Your task to perform on an android device: Go to notification settings Image 0: 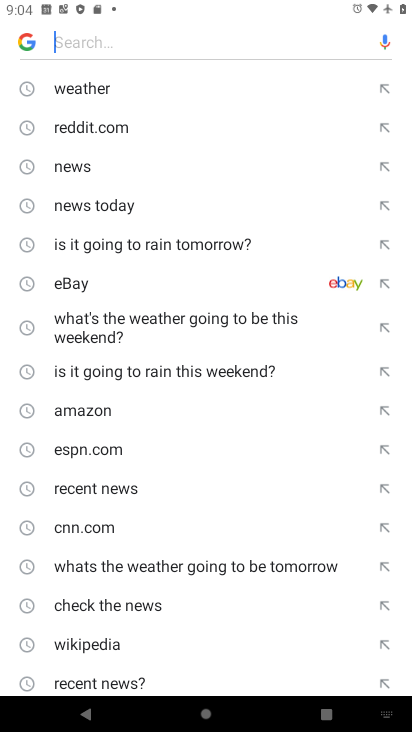
Step 0: press home button
Your task to perform on an android device: Go to notification settings Image 1: 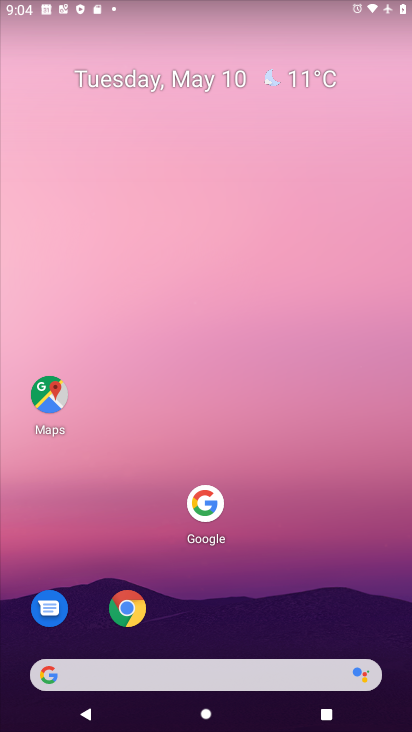
Step 1: drag from (199, 674) to (409, 53)
Your task to perform on an android device: Go to notification settings Image 2: 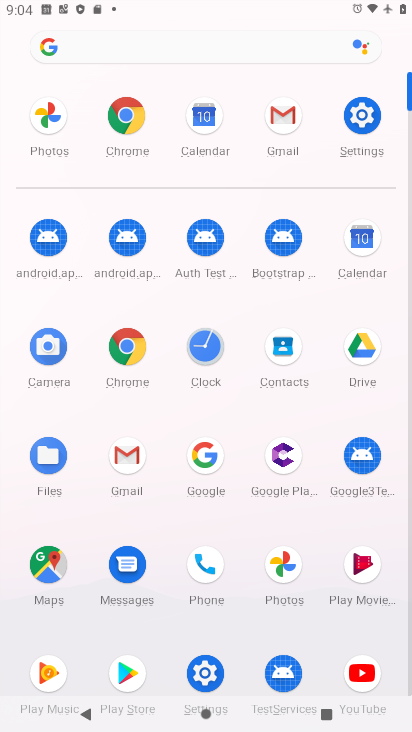
Step 2: click (366, 115)
Your task to perform on an android device: Go to notification settings Image 3: 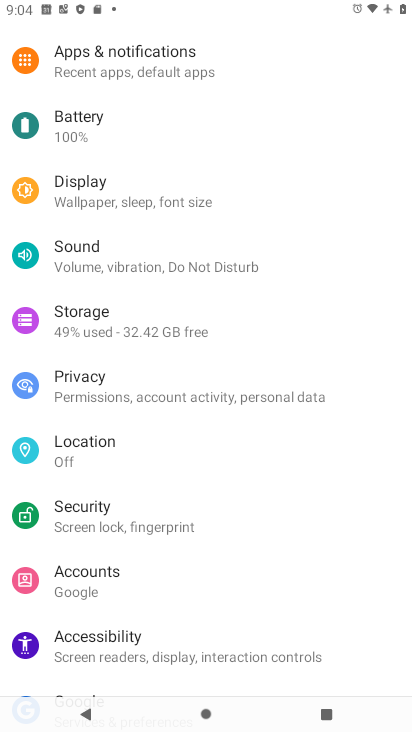
Step 3: click (172, 63)
Your task to perform on an android device: Go to notification settings Image 4: 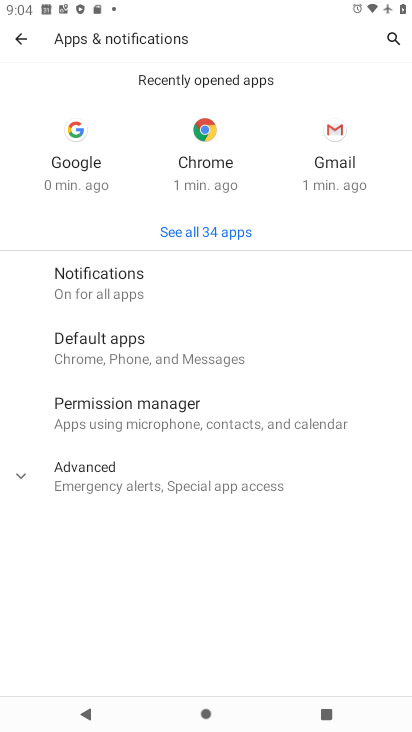
Step 4: click (129, 288)
Your task to perform on an android device: Go to notification settings Image 5: 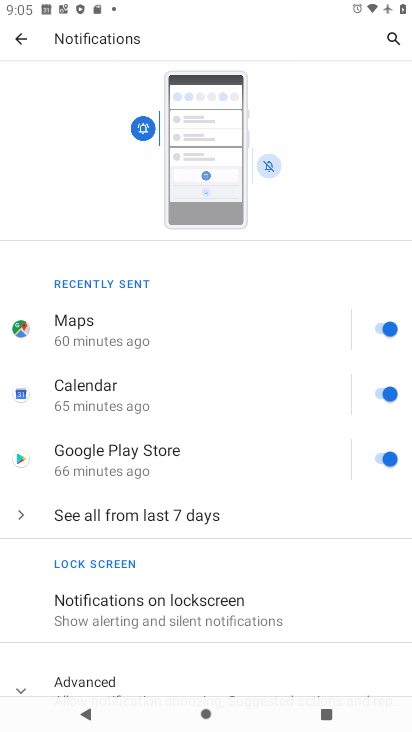
Step 5: task complete